Your task to perform on an android device: find which apps use the phone's location Image 0: 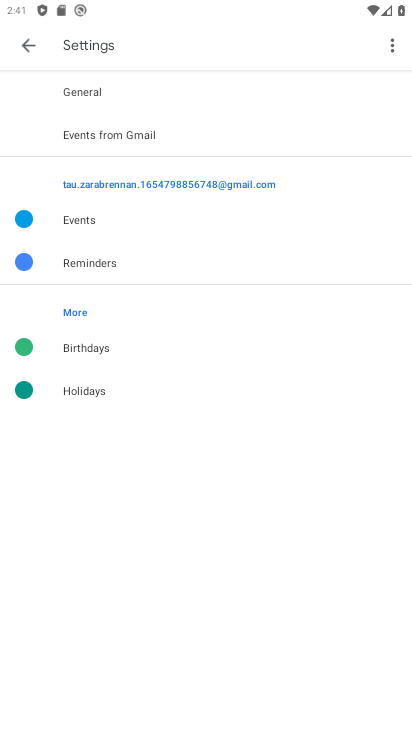
Step 0: press home button
Your task to perform on an android device: find which apps use the phone's location Image 1: 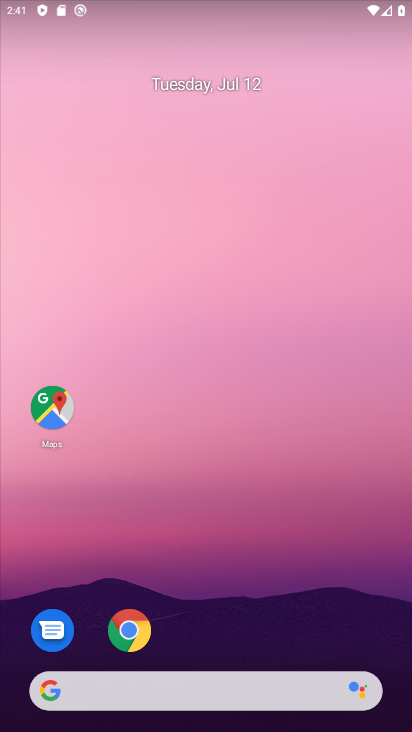
Step 1: drag from (204, 602) to (163, 14)
Your task to perform on an android device: find which apps use the phone's location Image 2: 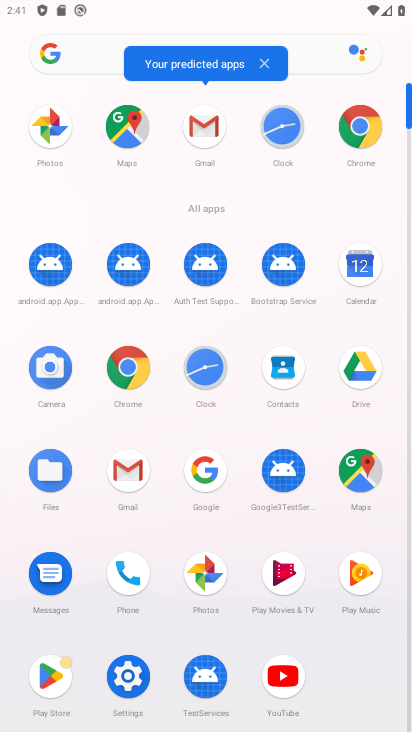
Step 2: click (122, 683)
Your task to perform on an android device: find which apps use the phone's location Image 3: 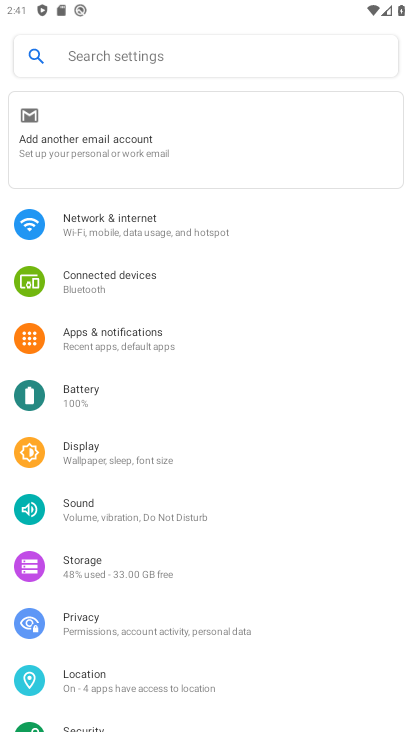
Step 3: click (102, 670)
Your task to perform on an android device: find which apps use the phone's location Image 4: 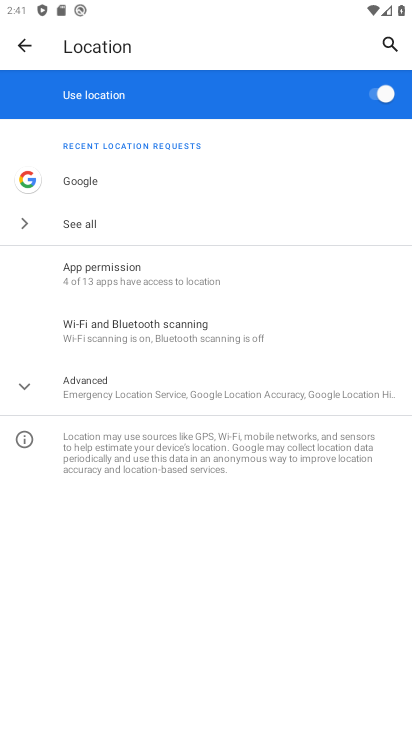
Step 4: click (140, 274)
Your task to perform on an android device: find which apps use the phone's location Image 5: 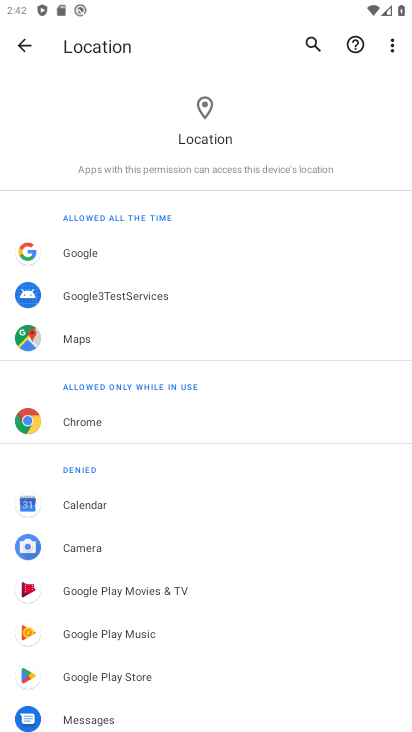
Step 5: task complete